Your task to perform on an android device: show emergency info Image 0: 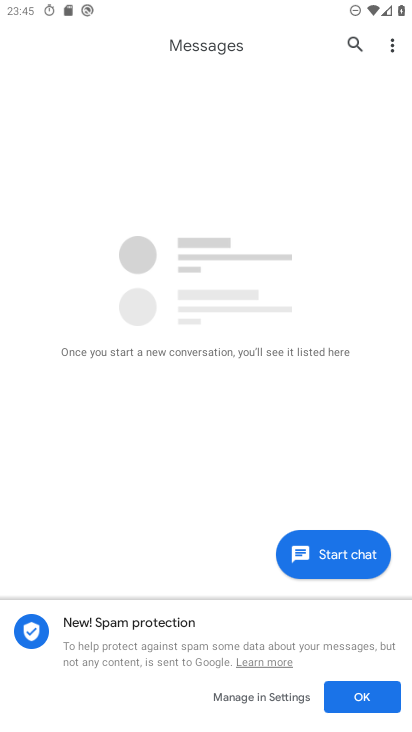
Step 0: press home button
Your task to perform on an android device: show emergency info Image 1: 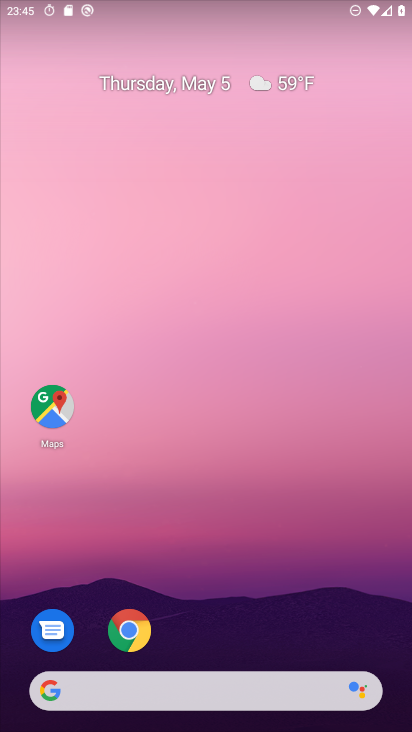
Step 1: drag from (303, 583) to (319, 38)
Your task to perform on an android device: show emergency info Image 2: 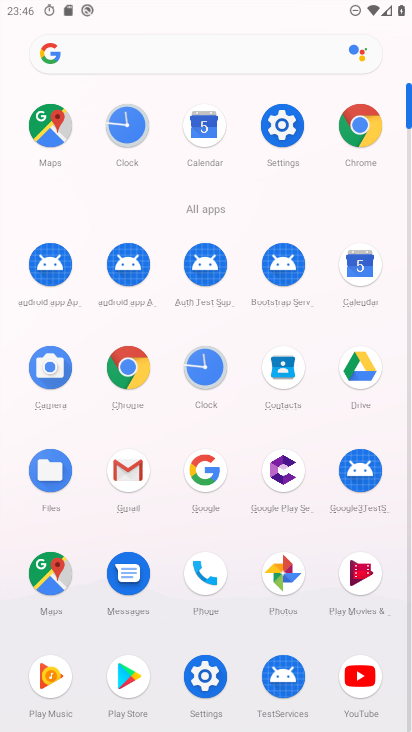
Step 2: click (281, 135)
Your task to perform on an android device: show emergency info Image 3: 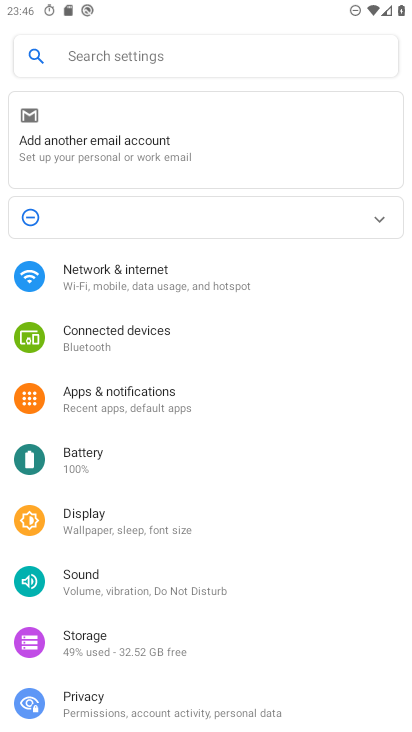
Step 3: drag from (204, 628) to (281, 36)
Your task to perform on an android device: show emergency info Image 4: 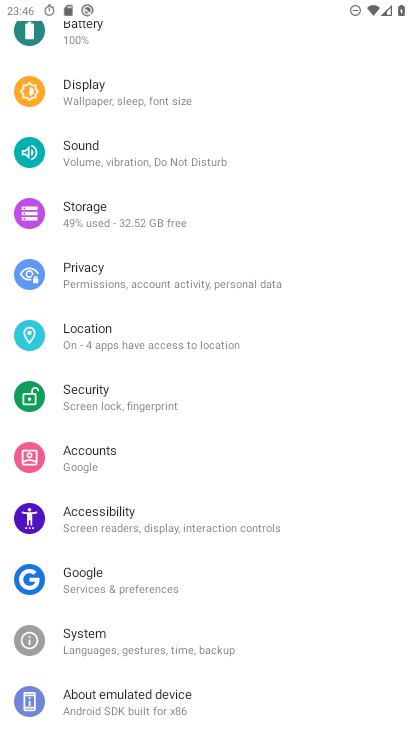
Step 4: click (127, 711)
Your task to perform on an android device: show emergency info Image 5: 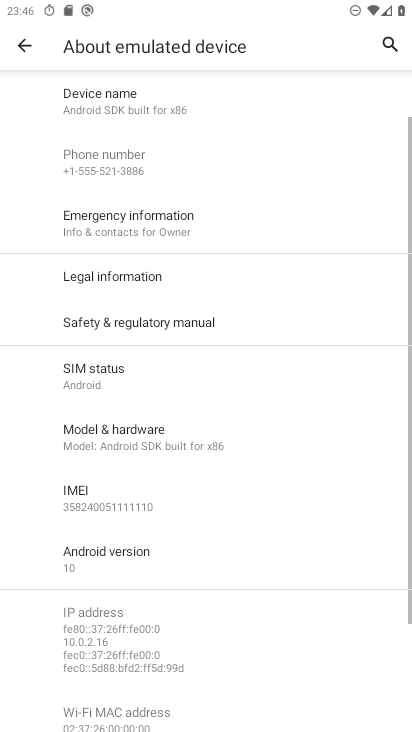
Step 5: click (141, 222)
Your task to perform on an android device: show emergency info Image 6: 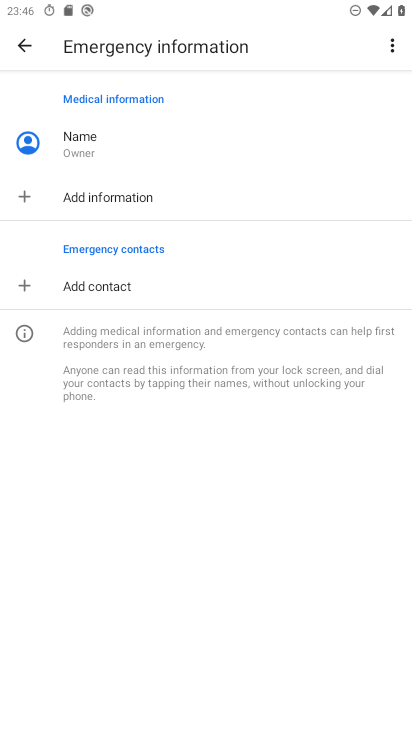
Step 6: task complete